Your task to perform on an android device: open device folders in google photos Image 0: 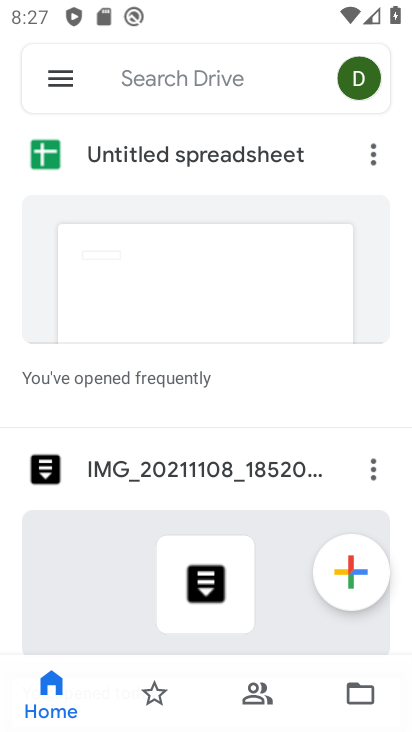
Step 0: press home button
Your task to perform on an android device: open device folders in google photos Image 1: 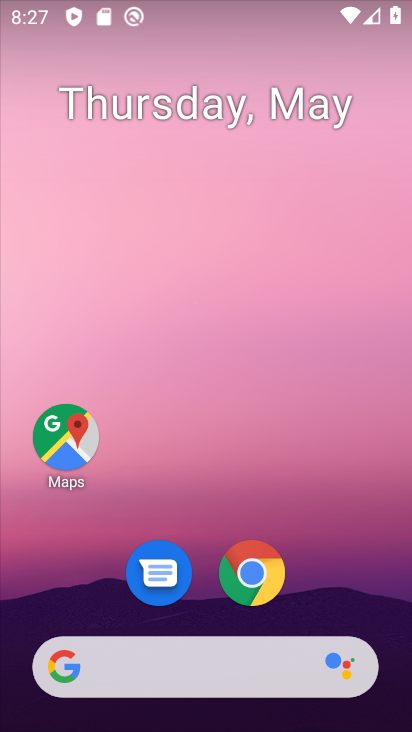
Step 1: drag from (331, 548) to (306, 199)
Your task to perform on an android device: open device folders in google photos Image 2: 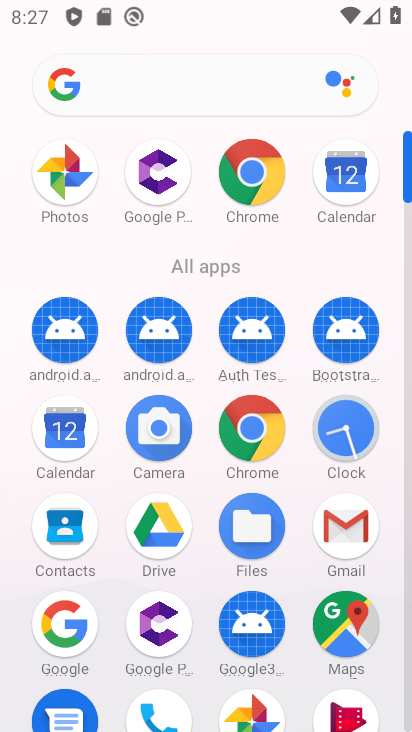
Step 2: click (258, 703)
Your task to perform on an android device: open device folders in google photos Image 3: 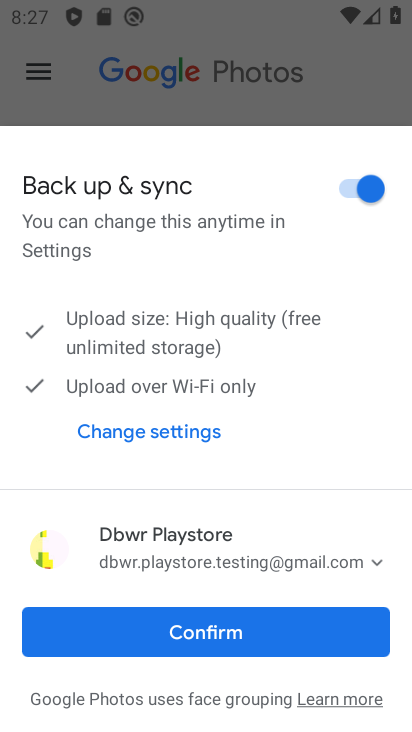
Step 3: click (261, 638)
Your task to perform on an android device: open device folders in google photos Image 4: 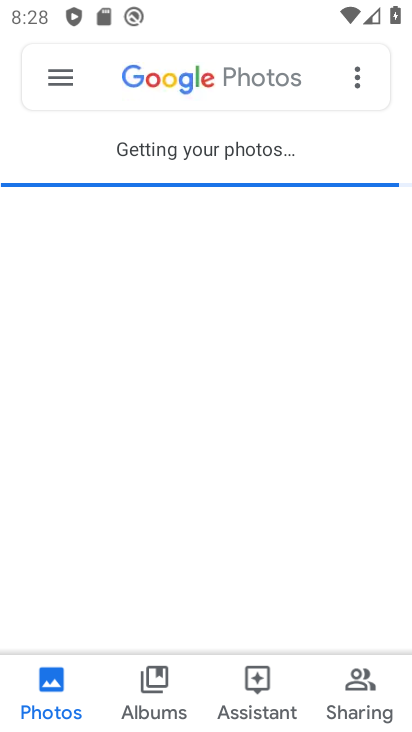
Step 4: click (57, 79)
Your task to perform on an android device: open device folders in google photos Image 5: 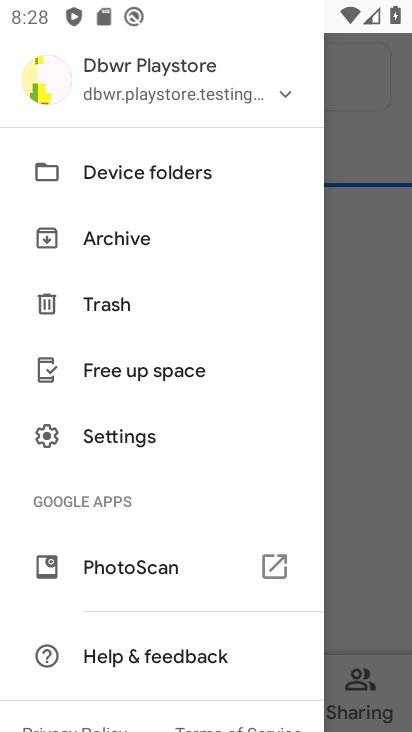
Step 5: click (104, 185)
Your task to perform on an android device: open device folders in google photos Image 6: 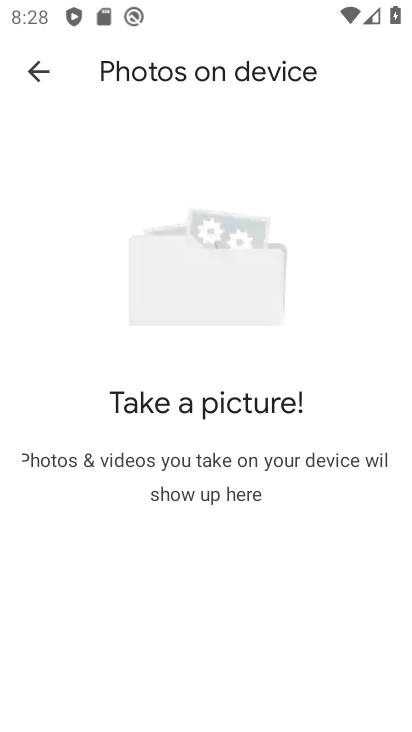
Step 6: task complete